Your task to perform on an android device: Check the weather Image 0: 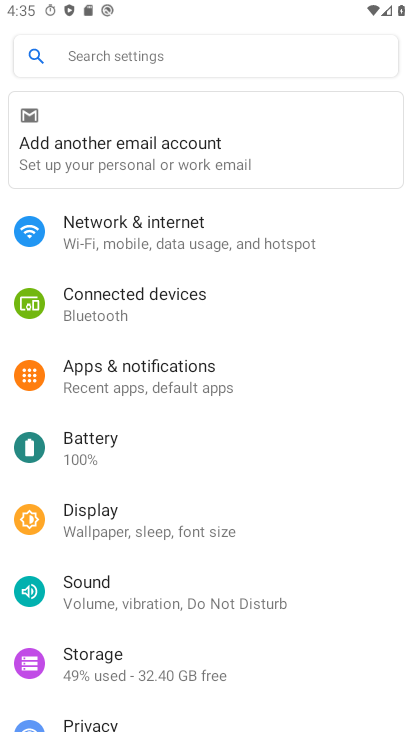
Step 0: press home button
Your task to perform on an android device: Check the weather Image 1: 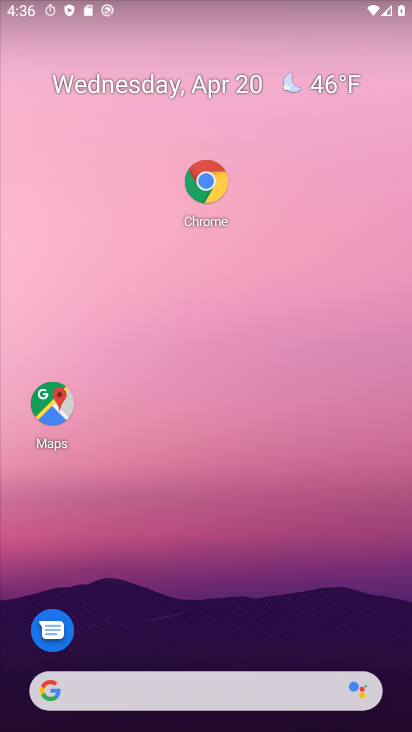
Step 1: drag from (224, 666) to (263, 24)
Your task to perform on an android device: Check the weather Image 2: 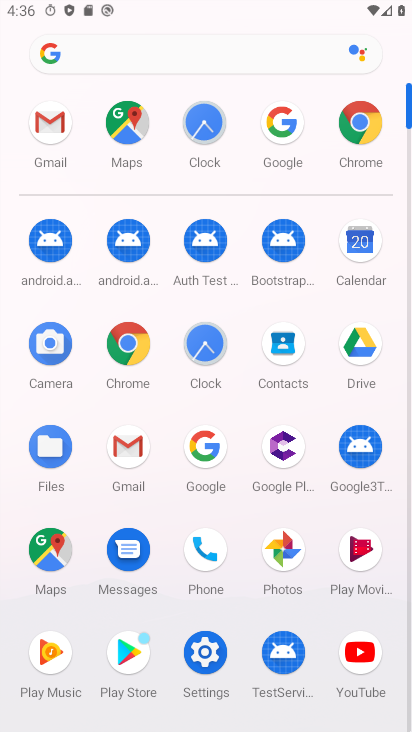
Step 2: click (199, 452)
Your task to perform on an android device: Check the weather Image 3: 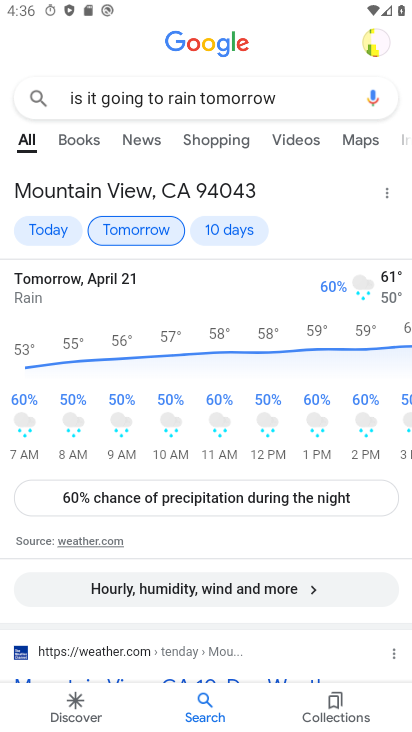
Step 3: click (57, 225)
Your task to perform on an android device: Check the weather Image 4: 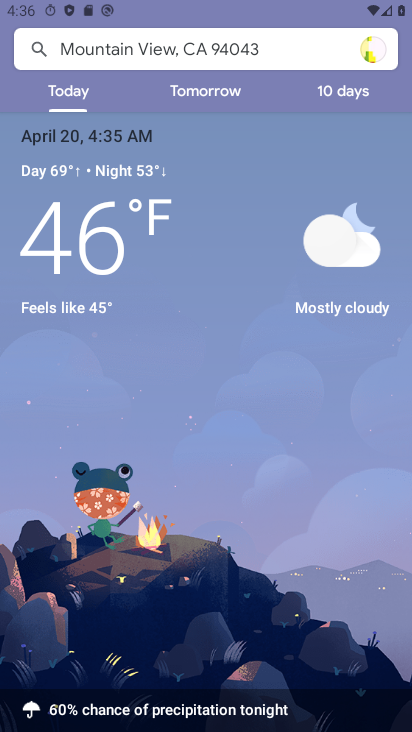
Step 4: task complete